Your task to perform on an android device: turn on sleep mode Image 0: 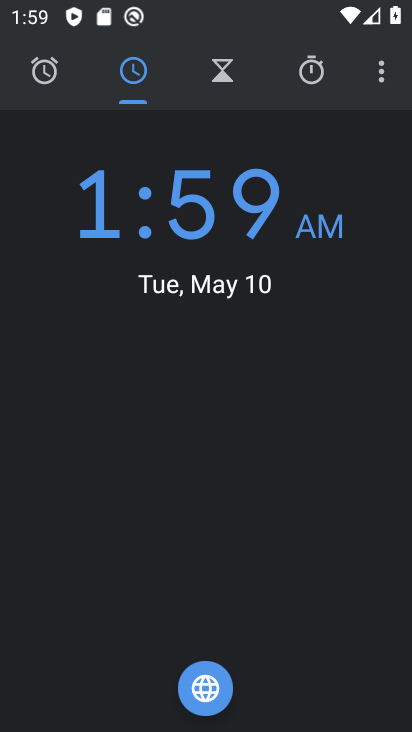
Step 0: press back button
Your task to perform on an android device: turn on sleep mode Image 1: 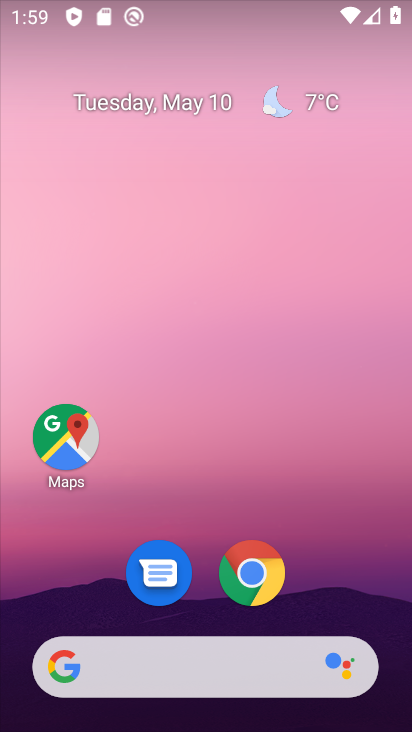
Step 1: drag from (63, 630) to (203, 92)
Your task to perform on an android device: turn on sleep mode Image 2: 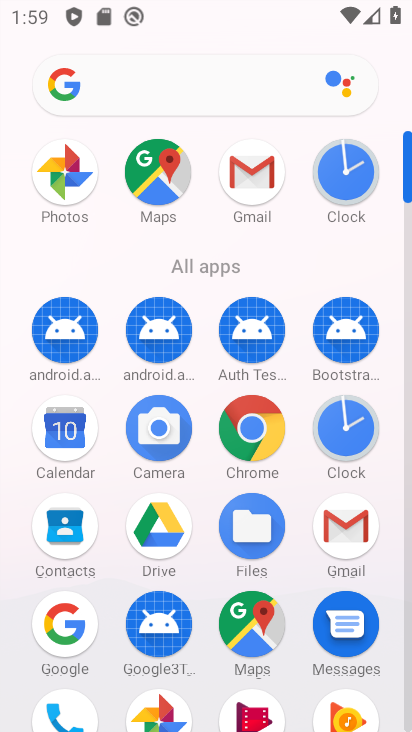
Step 2: drag from (187, 664) to (238, 427)
Your task to perform on an android device: turn on sleep mode Image 3: 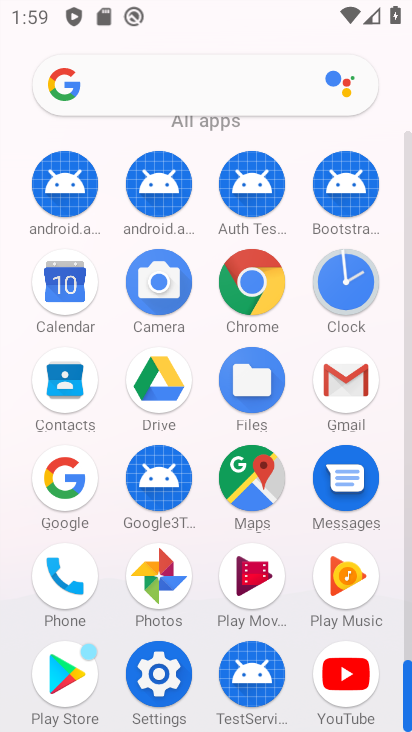
Step 3: click (163, 690)
Your task to perform on an android device: turn on sleep mode Image 4: 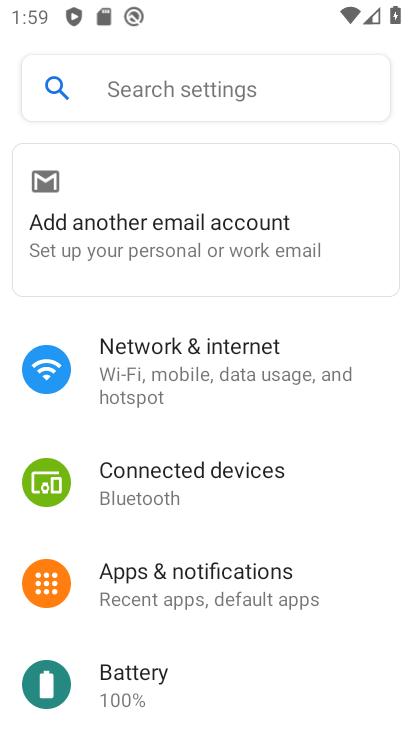
Step 4: drag from (179, 665) to (264, 254)
Your task to perform on an android device: turn on sleep mode Image 5: 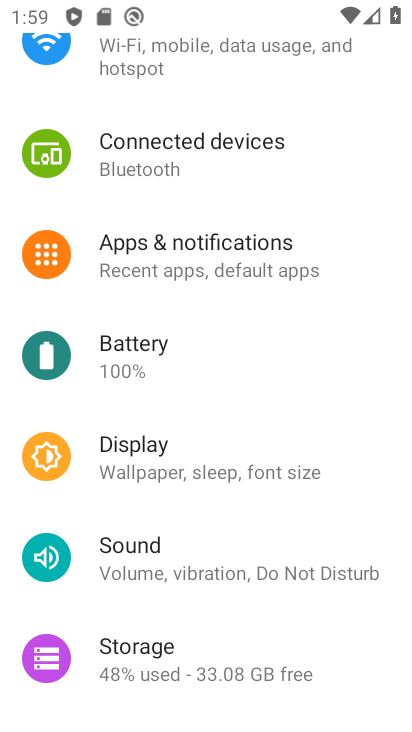
Step 5: click (207, 456)
Your task to perform on an android device: turn on sleep mode Image 6: 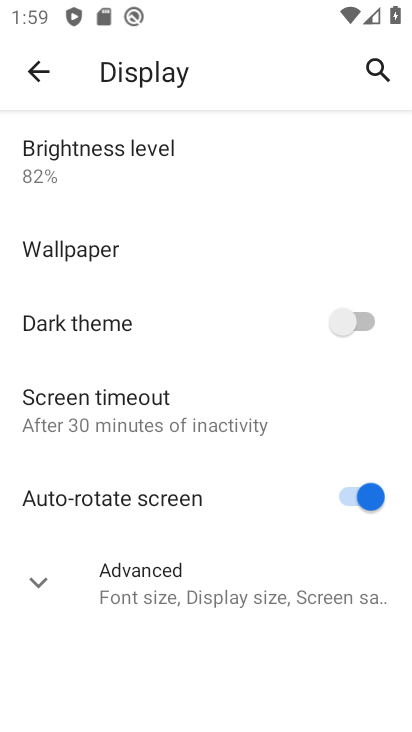
Step 6: click (171, 586)
Your task to perform on an android device: turn on sleep mode Image 7: 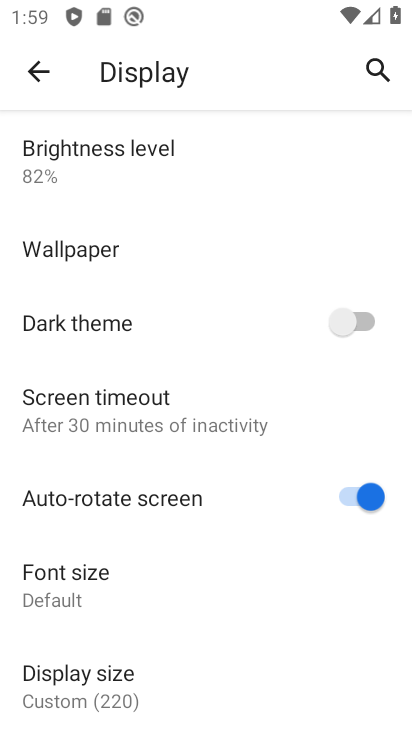
Step 7: task complete